Your task to perform on an android device: Empty the shopping cart on walmart. Search for rayovac triple a on walmart, select the first entry, add it to the cart, then select checkout. Image 0: 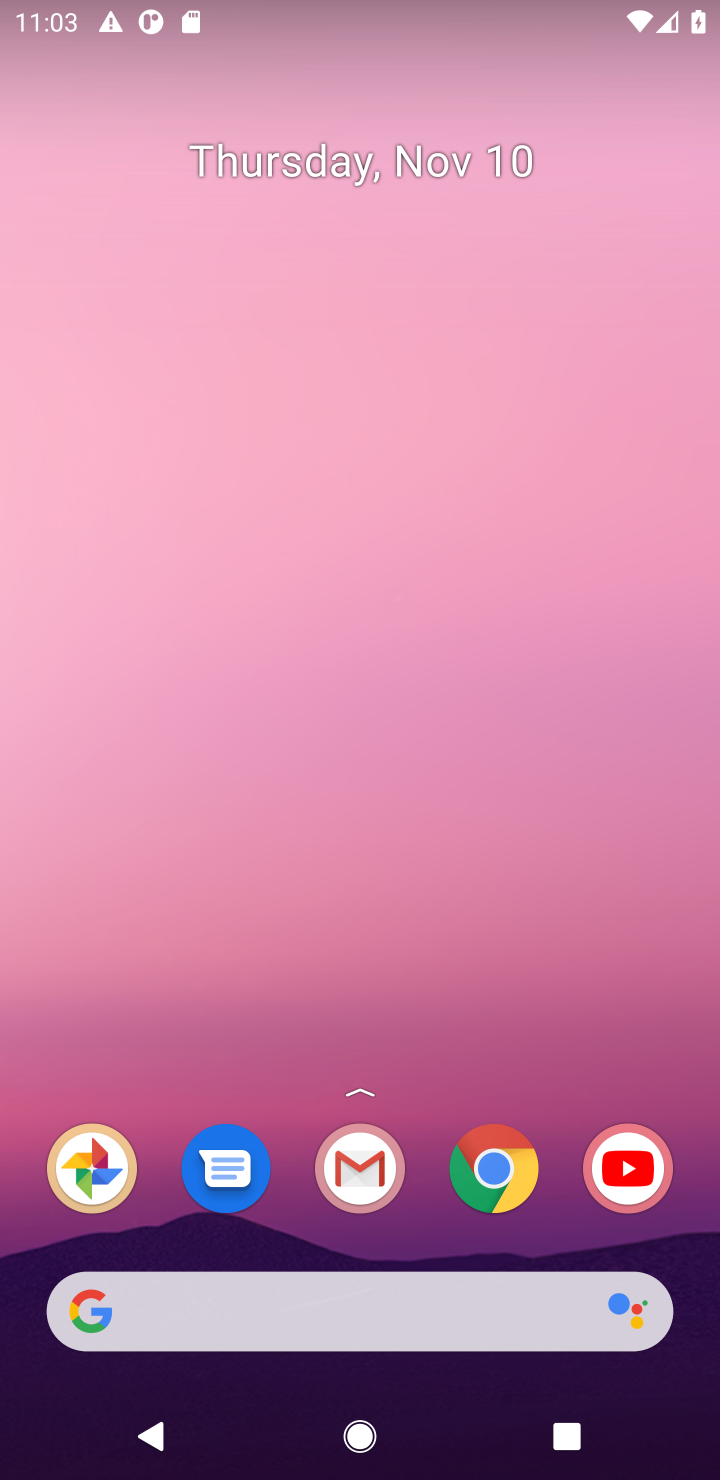
Step 0: click (491, 1196)
Your task to perform on an android device: Empty the shopping cart on walmart. Search for rayovac triple a on walmart, select the first entry, add it to the cart, then select checkout. Image 1: 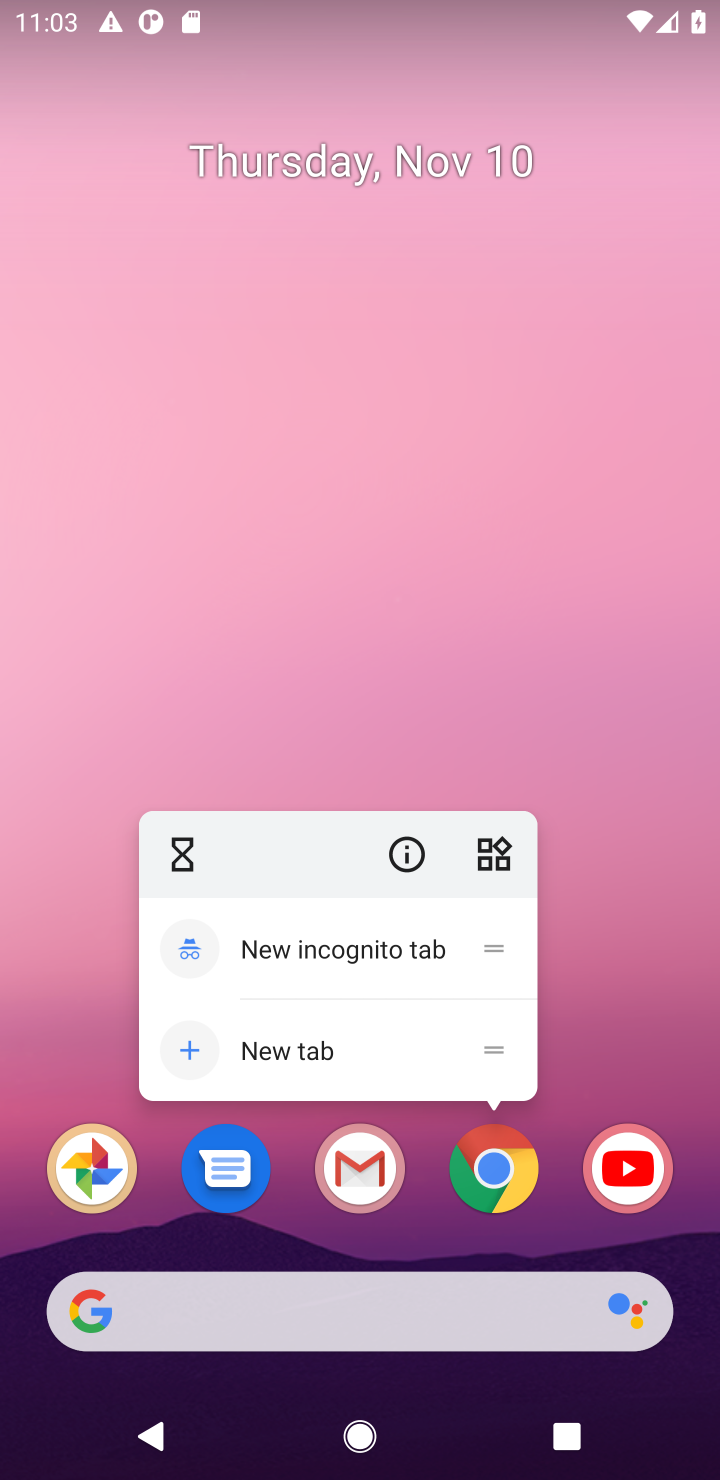
Step 1: click (504, 1159)
Your task to perform on an android device: Empty the shopping cart on walmart. Search for rayovac triple a on walmart, select the first entry, add it to the cart, then select checkout. Image 2: 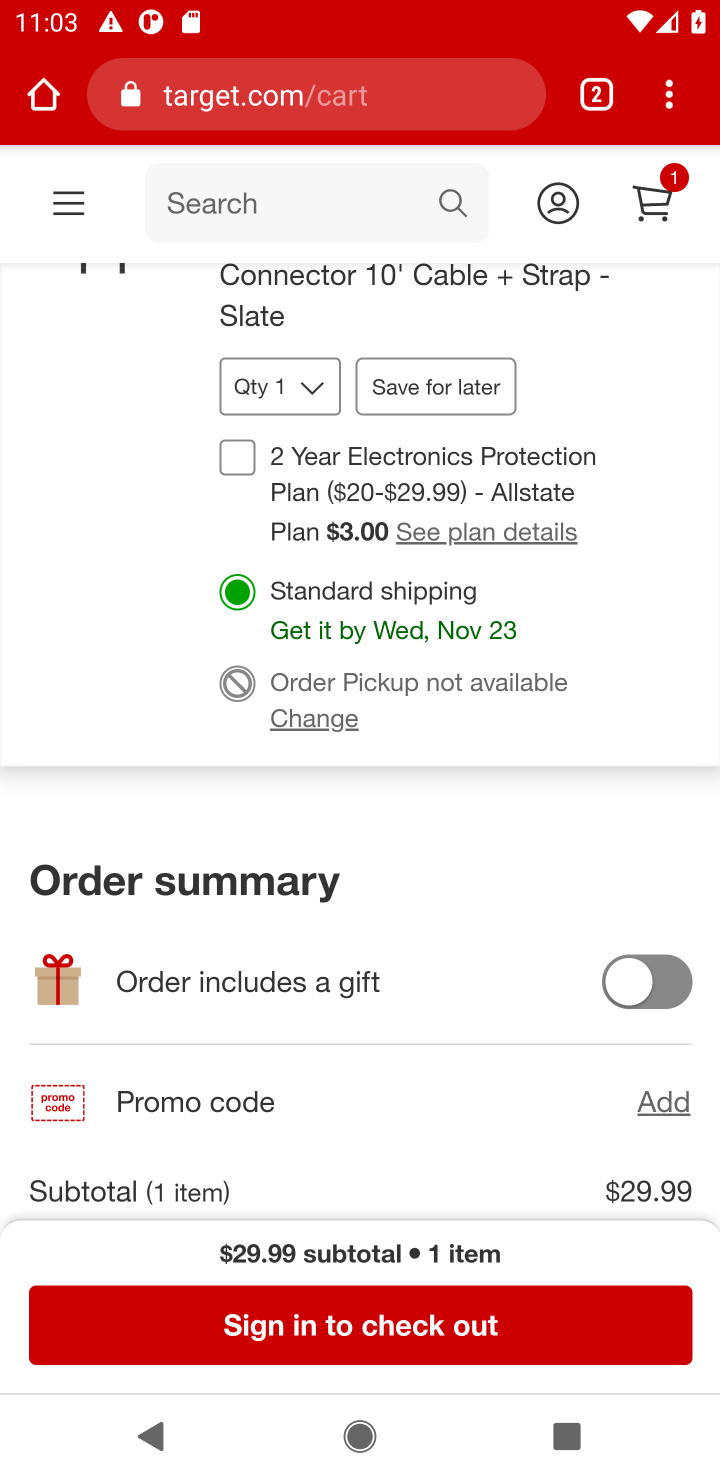
Step 2: click (366, 99)
Your task to perform on an android device: Empty the shopping cart on walmart. Search for rayovac triple a on walmart, select the first entry, add it to the cart, then select checkout. Image 3: 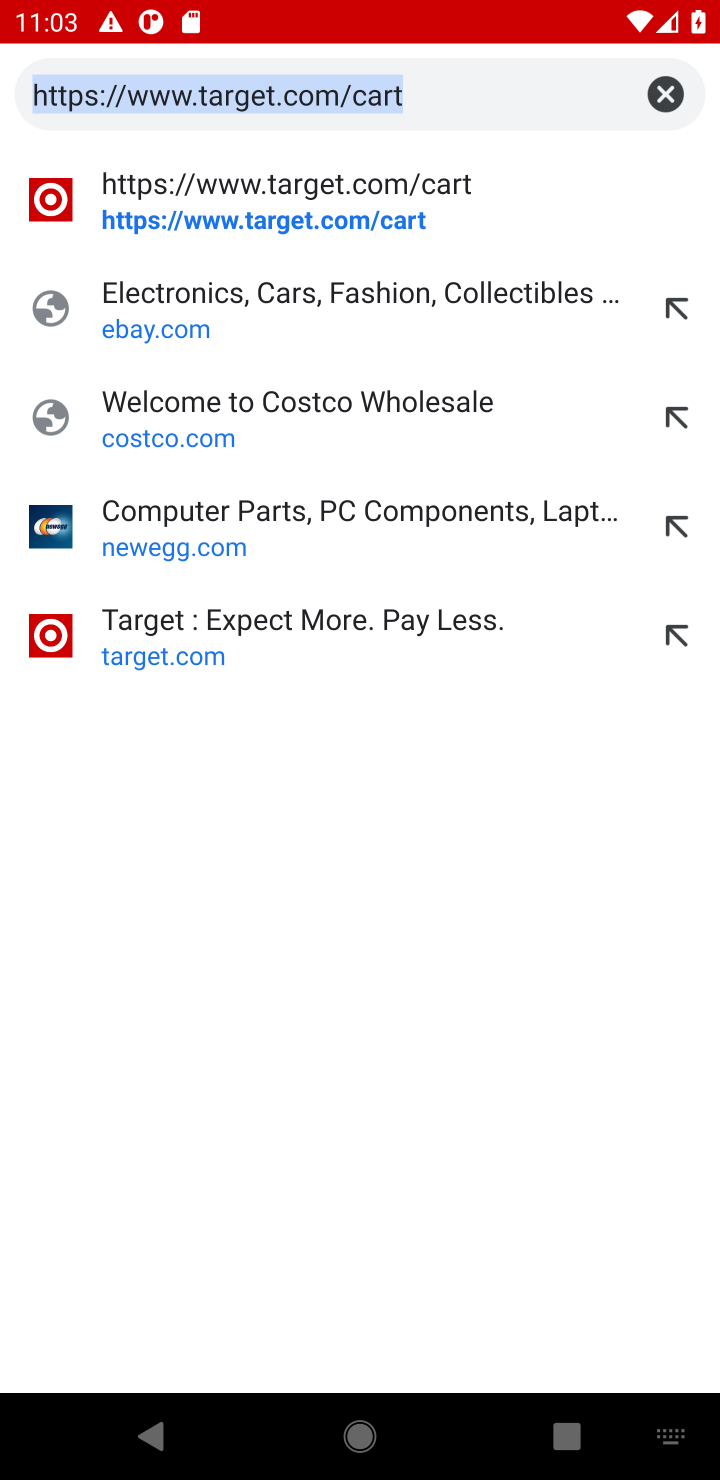
Step 3: type "walmart.com"
Your task to perform on an android device: Empty the shopping cart on walmart. Search for rayovac triple a on walmart, select the first entry, add it to the cart, then select checkout. Image 4: 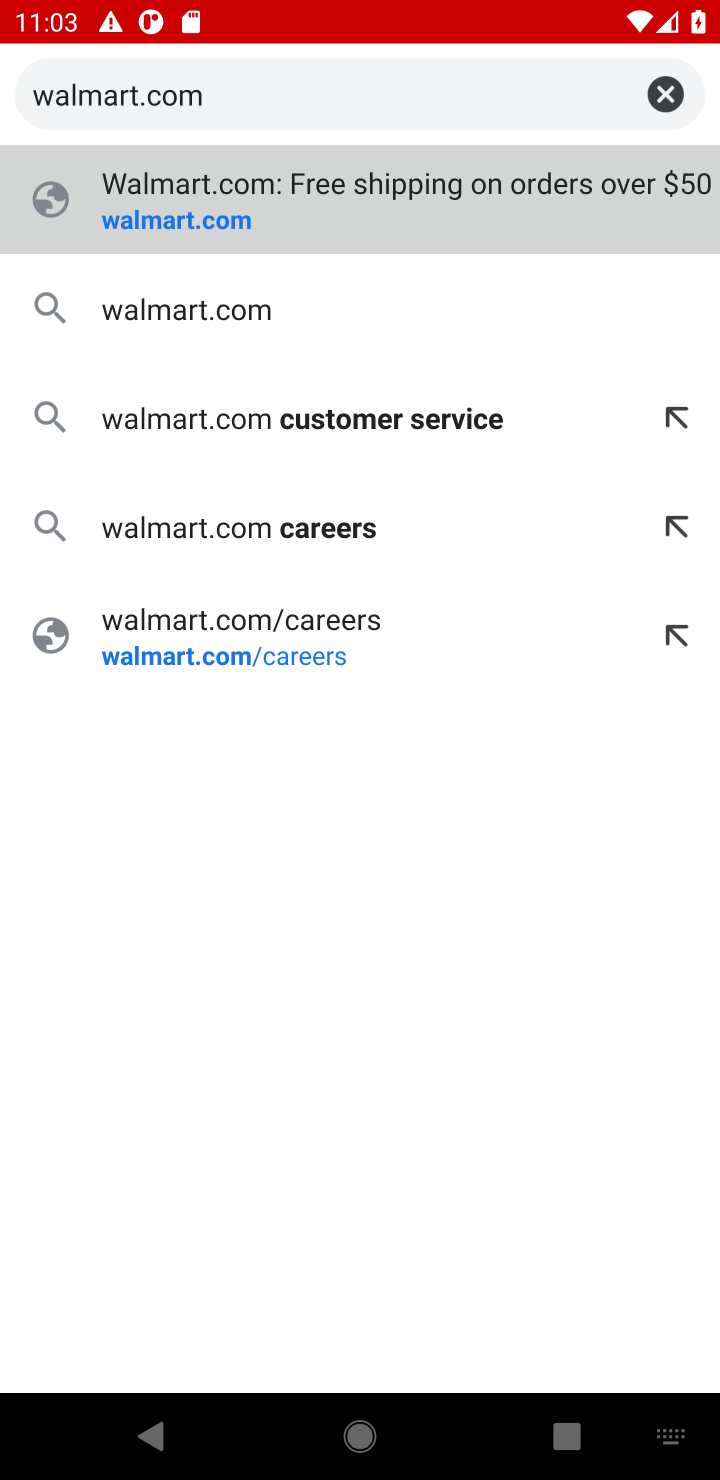
Step 4: click (210, 211)
Your task to perform on an android device: Empty the shopping cart on walmart. Search for rayovac triple a on walmart, select the first entry, add it to the cart, then select checkout. Image 5: 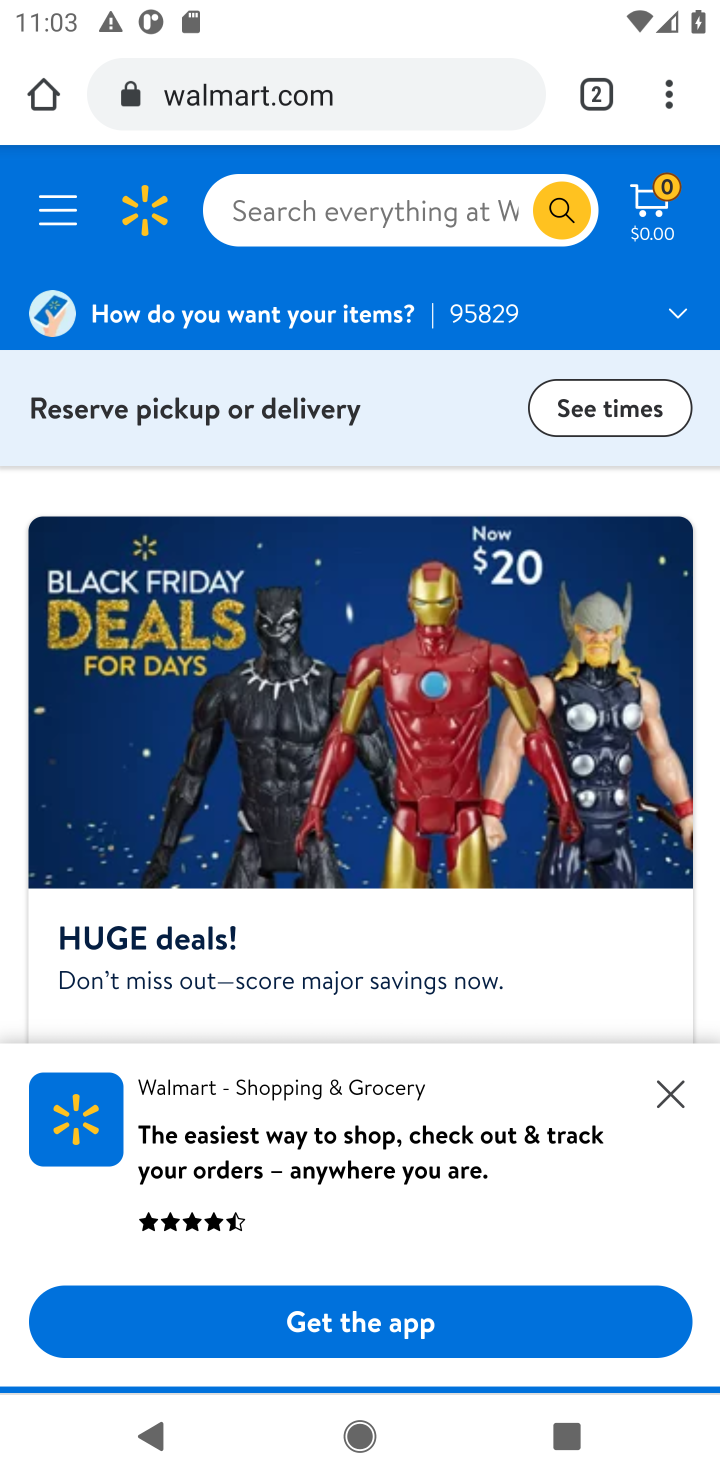
Step 5: click (642, 213)
Your task to perform on an android device: Empty the shopping cart on walmart. Search for rayovac triple a on walmart, select the first entry, add it to the cart, then select checkout. Image 6: 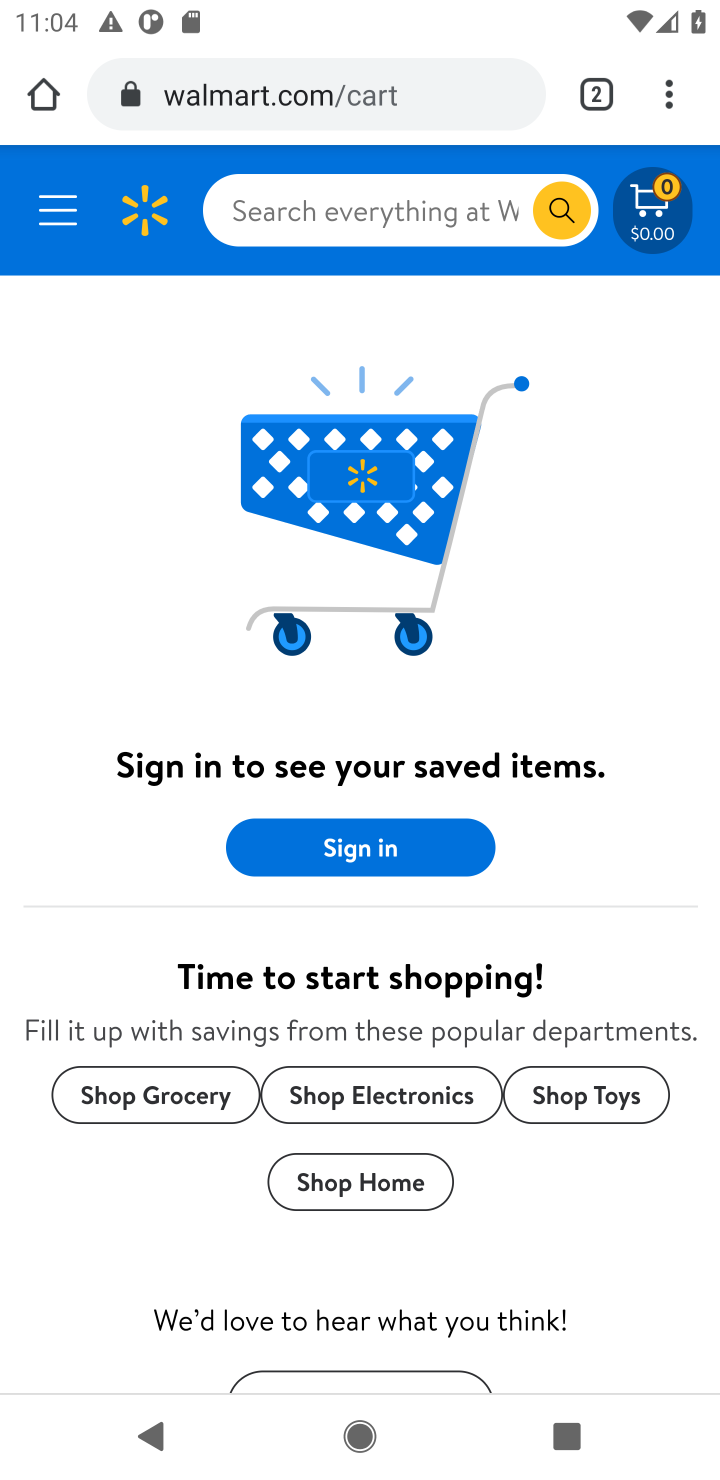
Step 6: click (317, 204)
Your task to perform on an android device: Empty the shopping cart on walmart. Search for rayovac triple a on walmart, select the first entry, add it to the cart, then select checkout. Image 7: 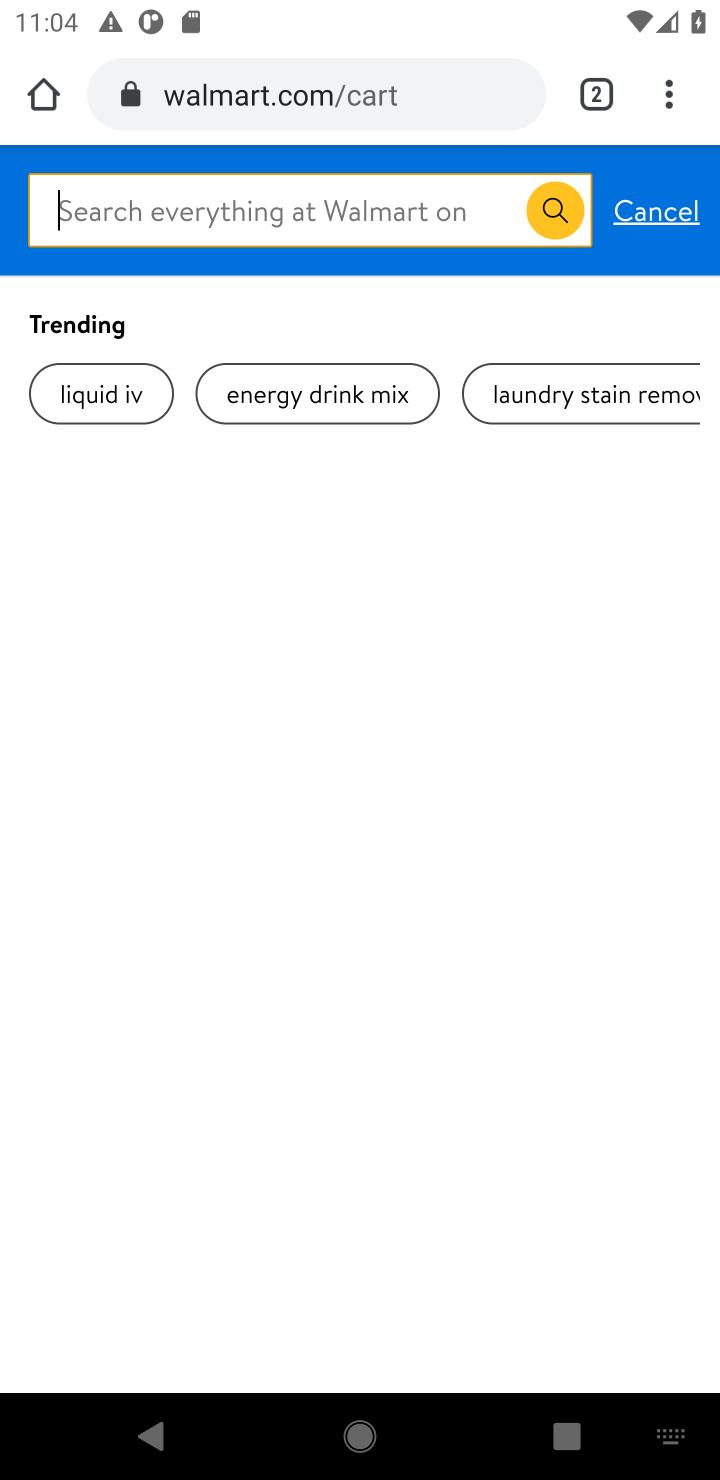
Step 7: type "rayovac triple a "
Your task to perform on an android device: Empty the shopping cart on walmart. Search for rayovac triple a on walmart, select the first entry, add it to the cart, then select checkout. Image 8: 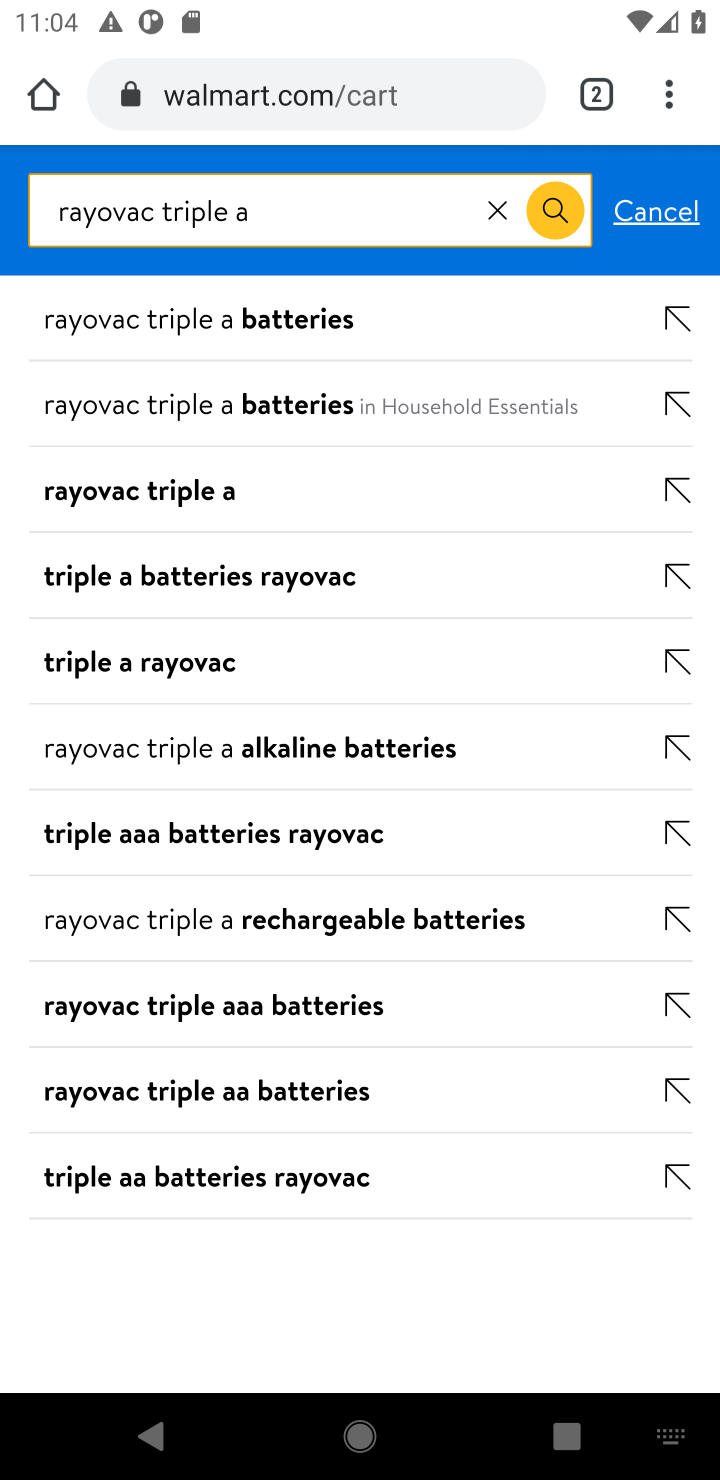
Step 8: click (193, 506)
Your task to perform on an android device: Empty the shopping cart on walmart. Search for rayovac triple a on walmart, select the first entry, add it to the cart, then select checkout. Image 9: 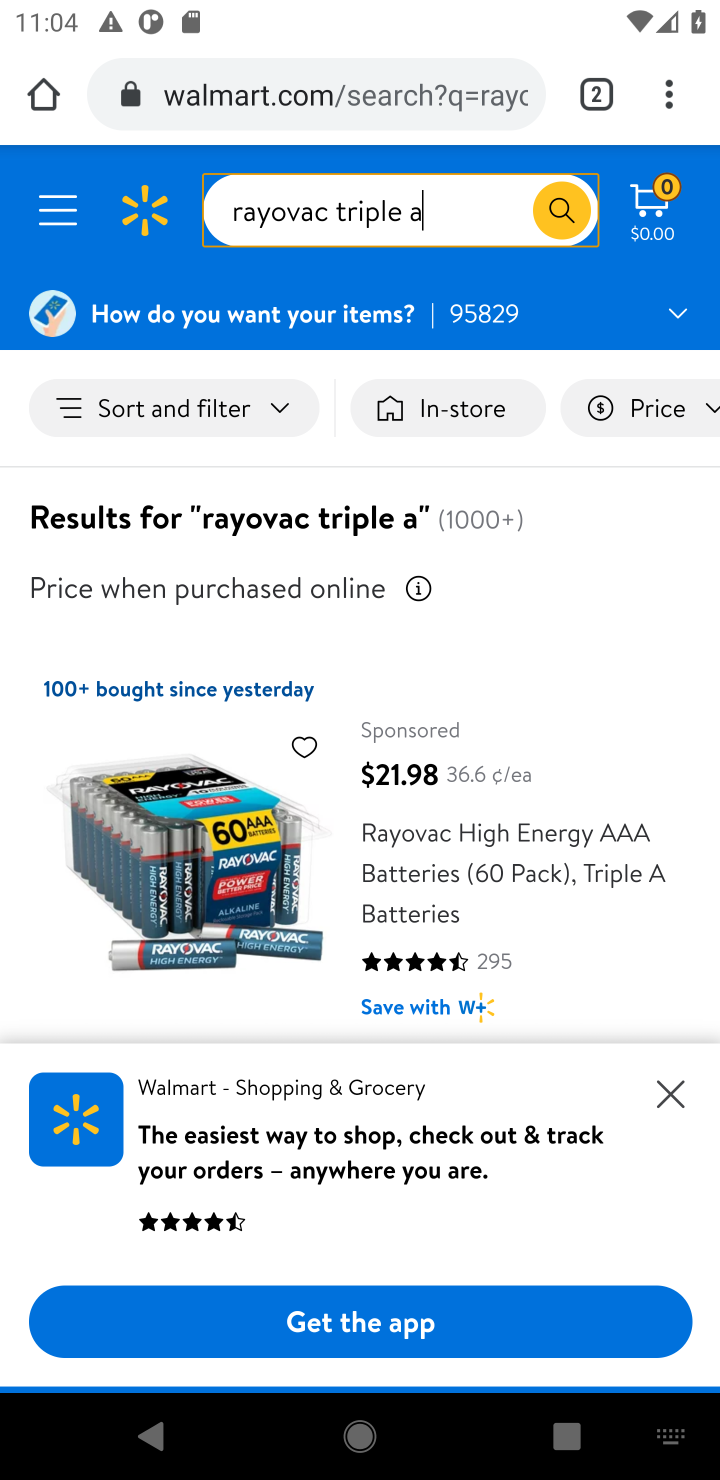
Step 9: drag from (221, 831) to (179, 621)
Your task to perform on an android device: Empty the shopping cart on walmart. Search for rayovac triple a on walmart, select the first entry, add it to the cart, then select checkout. Image 10: 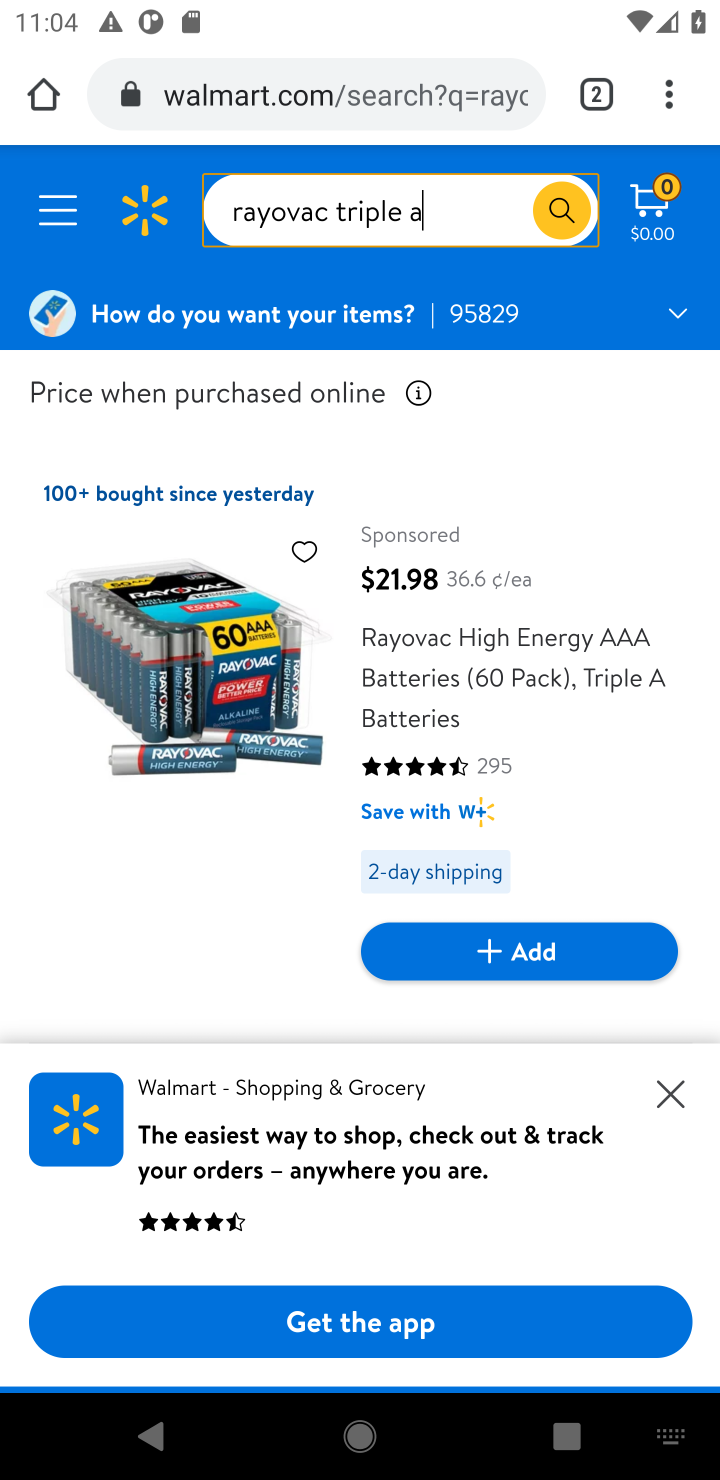
Step 10: click (659, 1100)
Your task to perform on an android device: Empty the shopping cart on walmart. Search for rayovac triple a on walmart, select the first entry, add it to the cart, then select checkout. Image 11: 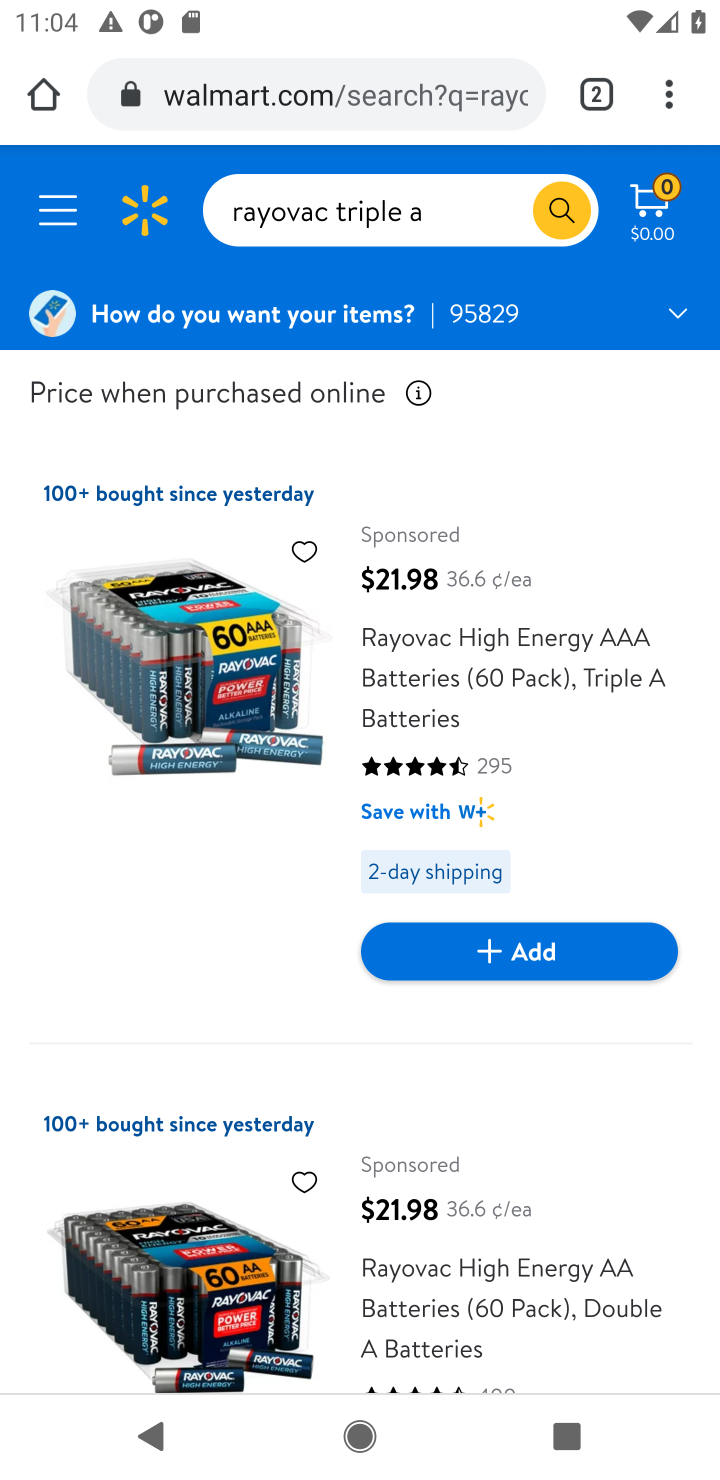
Step 11: click (530, 965)
Your task to perform on an android device: Empty the shopping cart on walmart. Search for rayovac triple a on walmart, select the first entry, add it to the cart, then select checkout. Image 12: 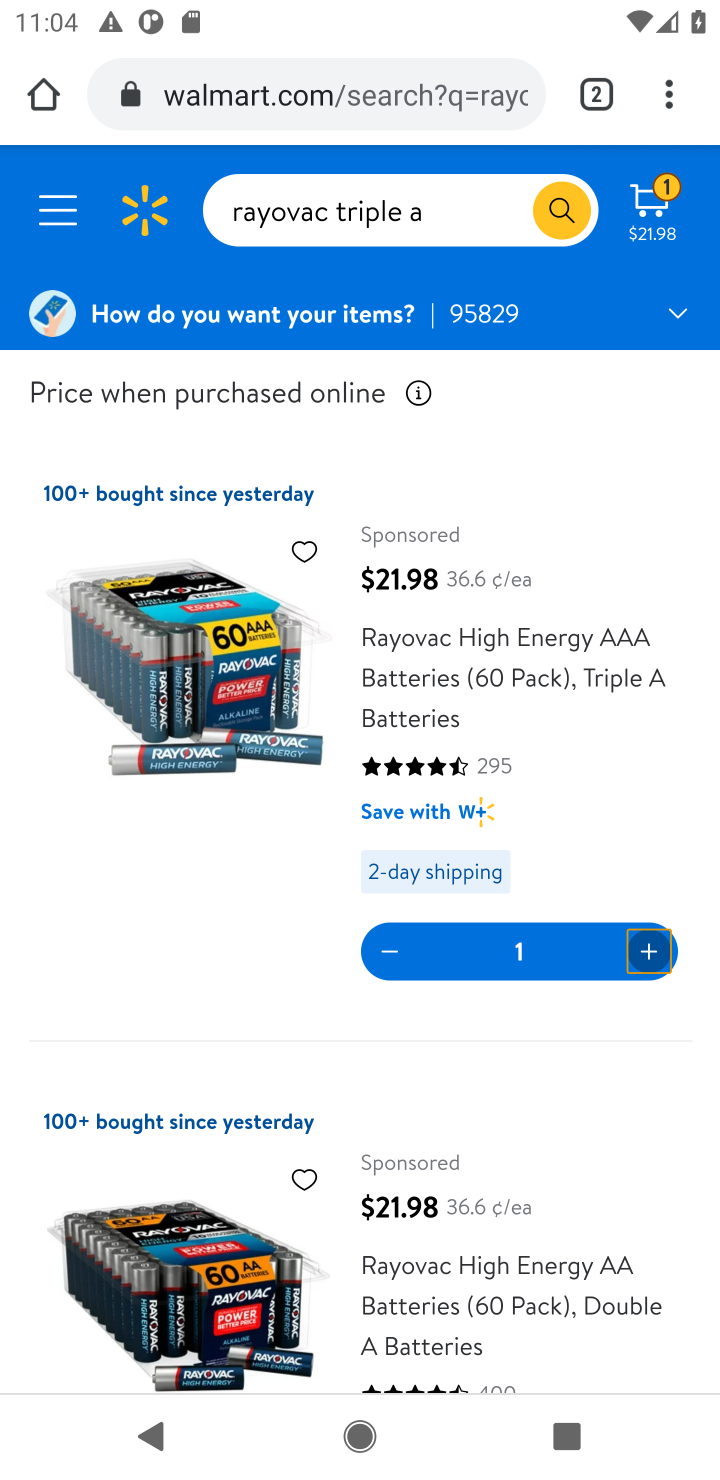
Step 12: click (654, 229)
Your task to perform on an android device: Empty the shopping cart on walmart. Search for rayovac triple a on walmart, select the first entry, add it to the cart, then select checkout. Image 13: 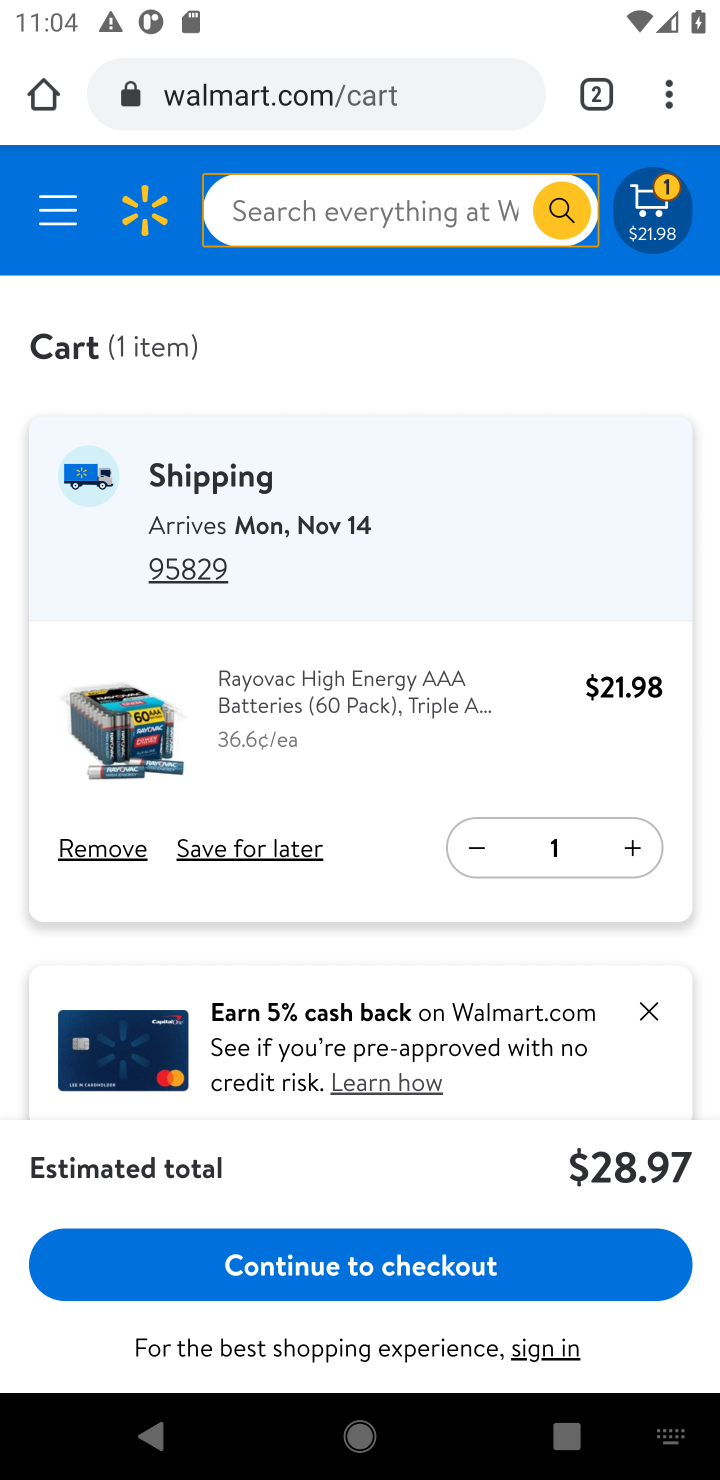
Step 13: click (307, 1265)
Your task to perform on an android device: Empty the shopping cart on walmart. Search for rayovac triple a on walmart, select the first entry, add it to the cart, then select checkout. Image 14: 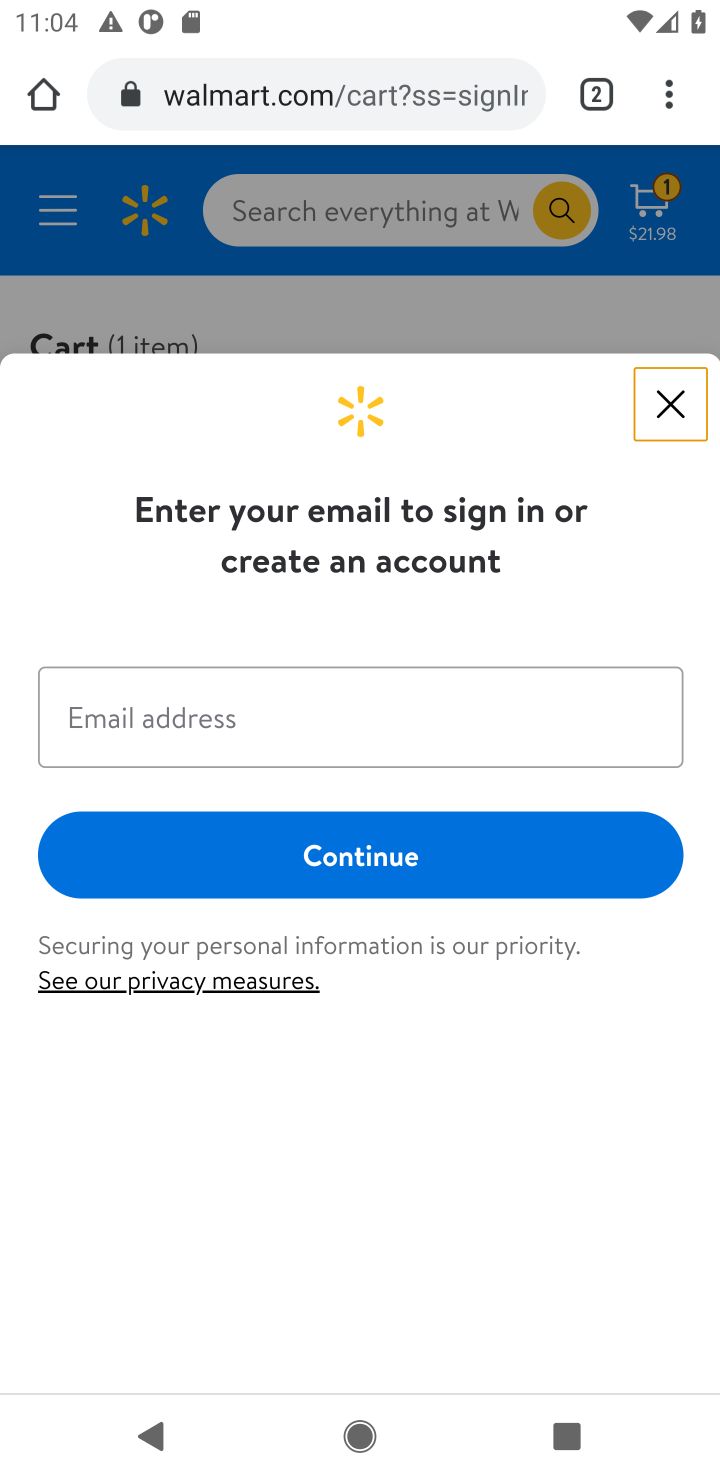
Step 14: task complete